Your task to perform on an android device: What is the recent news? Image 0: 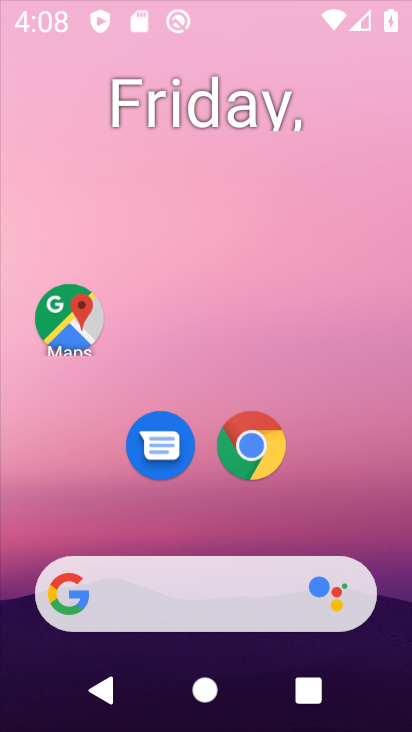
Step 0: press home button
Your task to perform on an android device: What is the recent news? Image 1: 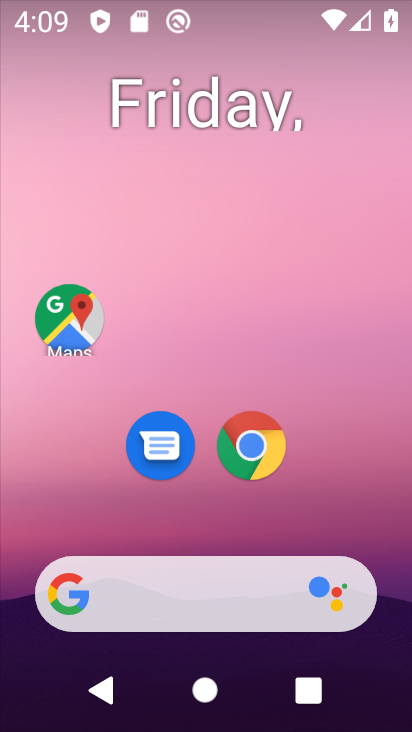
Step 1: click (76, 595)
Your task to perform on an android device: What is the recent news? Image 2: 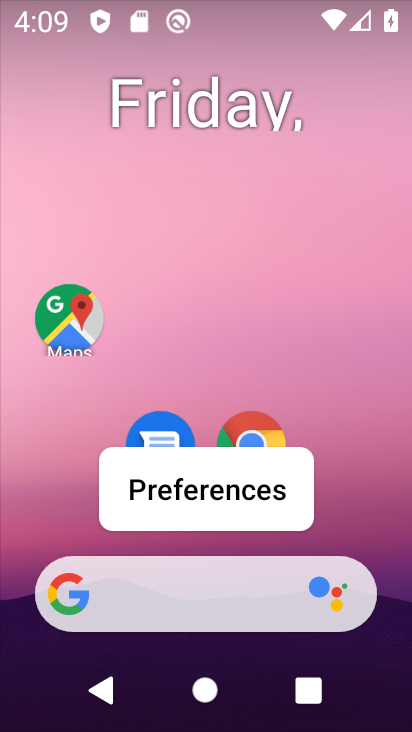
Step 2: click (49, 607)
Your task to perform on an android device: What is the recent news? Image 3: 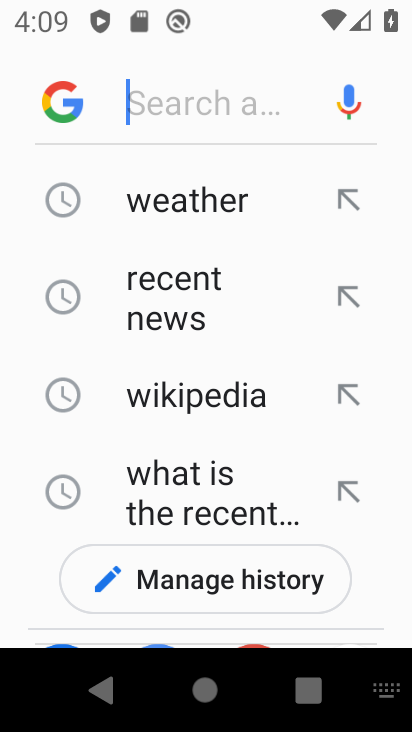
Step 3: click (159, 303)
Your task to perform on an android device: What is the recent news? Image 4: 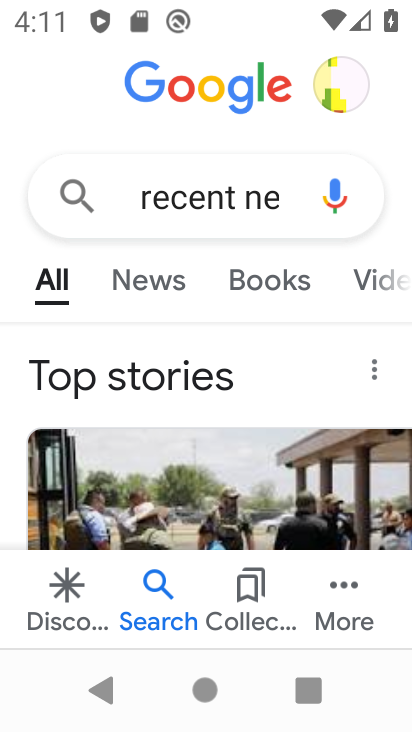
Step 4: task complete